Your task to perform on an android device: change the clock display to analog Image 0: 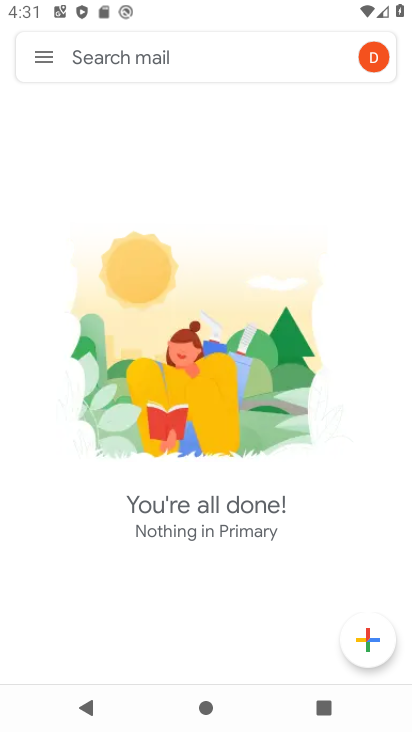
Step 0: press home button
Your task to perform on an android device: change the clock display to analog Image 1: 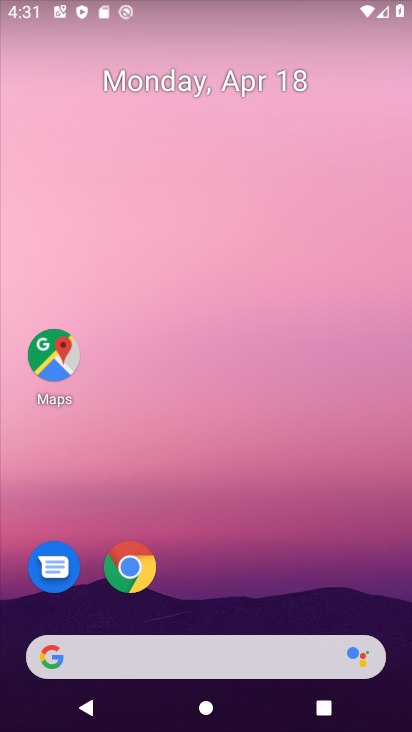
Step 1: drag from (202, 644) to (169, 123)
Your task to perform on an android device: change the clock display to analog Image 2: 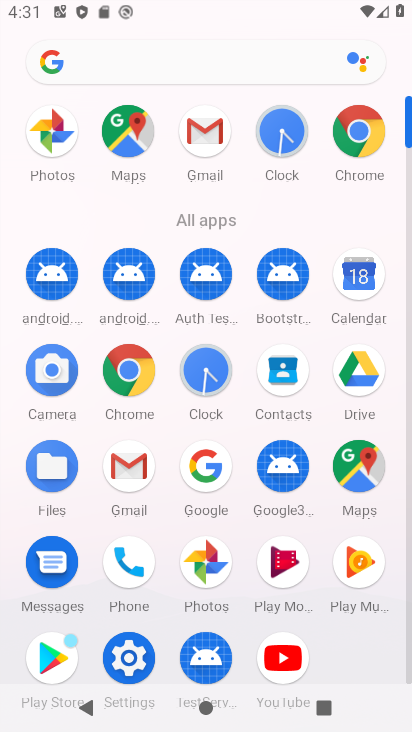
Step 2: click (282, 123)
Your task to perform on an android device: change the clock display to analog Image 3: 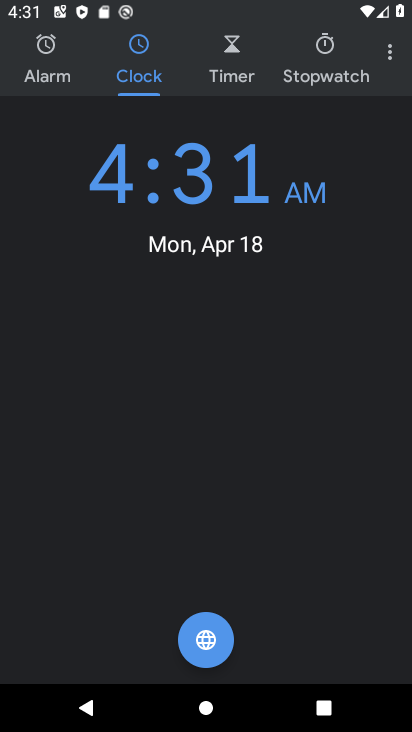
Step 3: click (386, 36)
Your task to perform on an android device: change the clock display to analog Image 4: 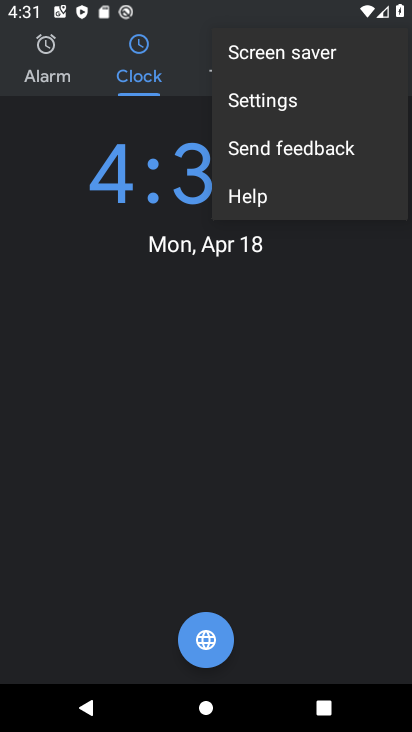
Step 4: click (272, 107)
Your task to perform on an android device: change the clock display to analog Image 5: 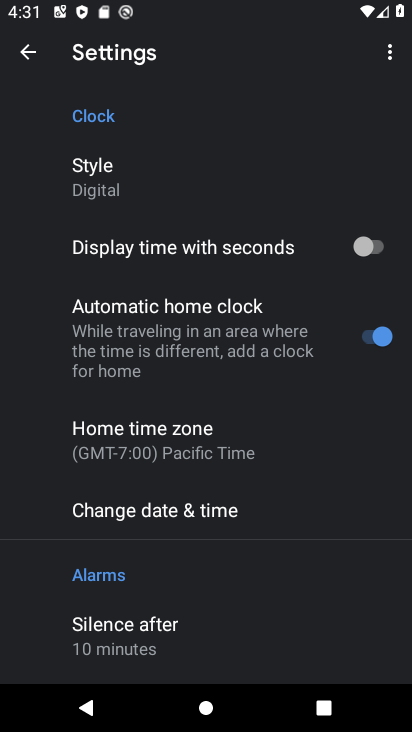
Step 5: click (110, 176)
Your task to perform on an android device: change the clock display to analog Image 6: 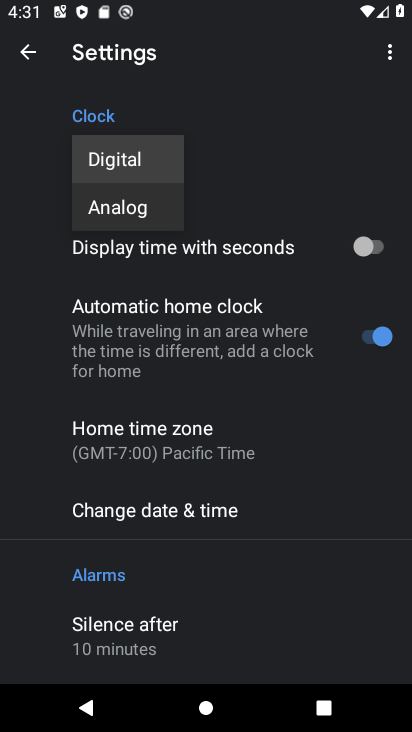
Step 6: click (124, 209)
Your task to perform on an android device: change the clock display to analog Image 7: 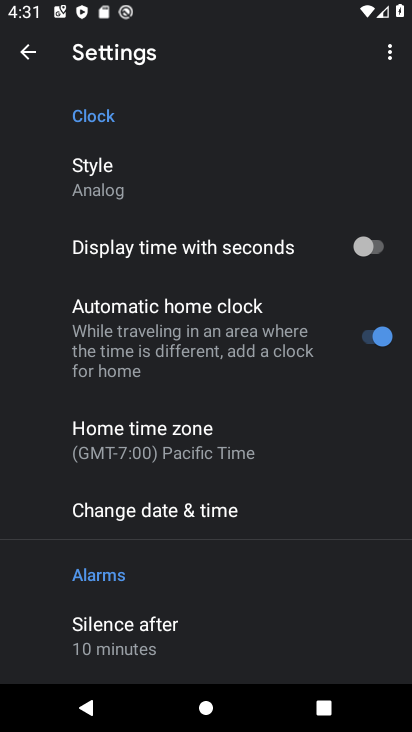
Step 7: task complete